Your task to perform on an android device: turn off picture-in-picture Image 0: 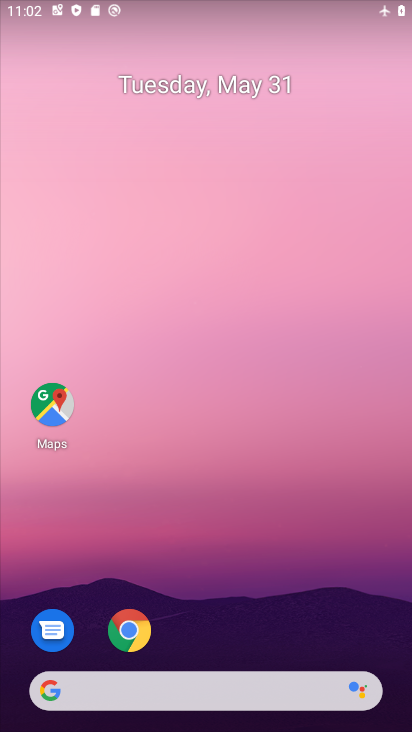
Step 0: drag from (220, 607) to (270, 124)
Your task to perform on an android device: turn off picture-in-picture Image 1: 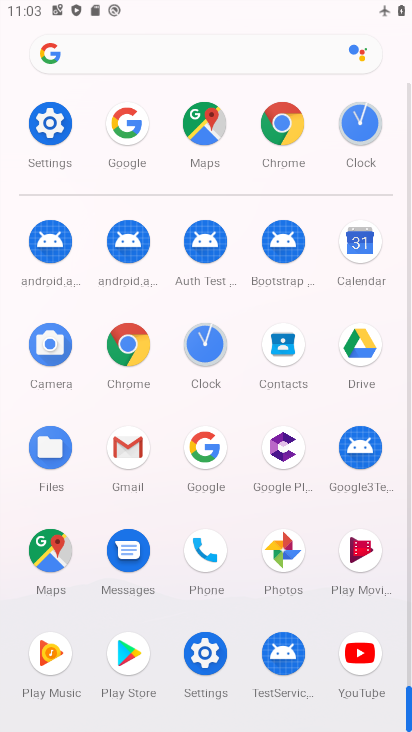
Step 1: click (59, 158)
Your task to perform on an android device: turn off picture-in-picture Image 2: 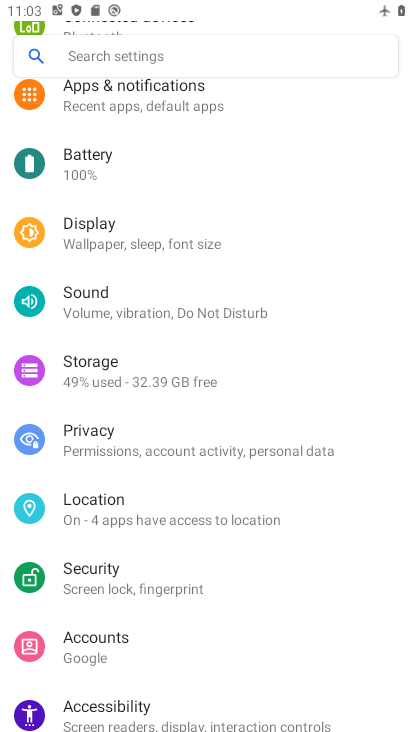
Step 2: drag from (145, 293) to (166, 491)
Your task to perform on an android device: turn off picture-in-picture Image 3: 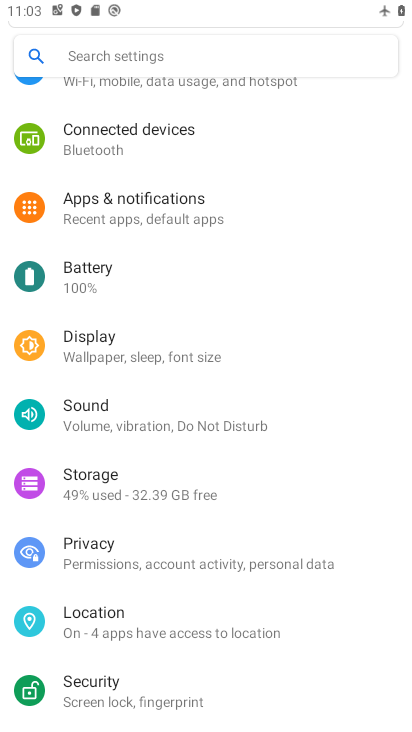
Step 3: click (205, 211)
Your task to perform on an android device: turn off picture-in-picture Image 4: 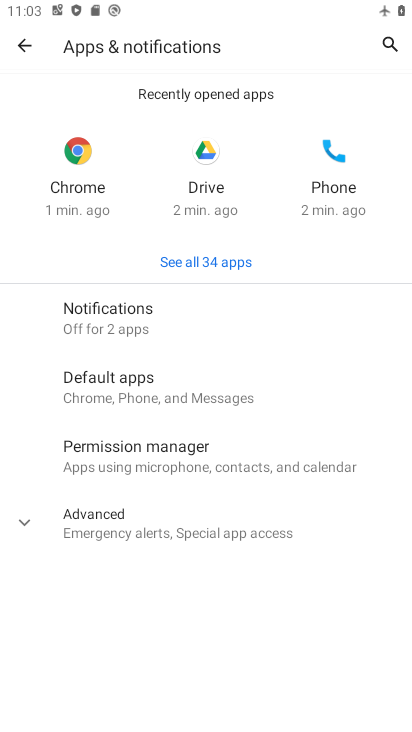
Step 4: click (209, 532)
Your task to perform on an android device: turn off picture-in-picture Image 5: 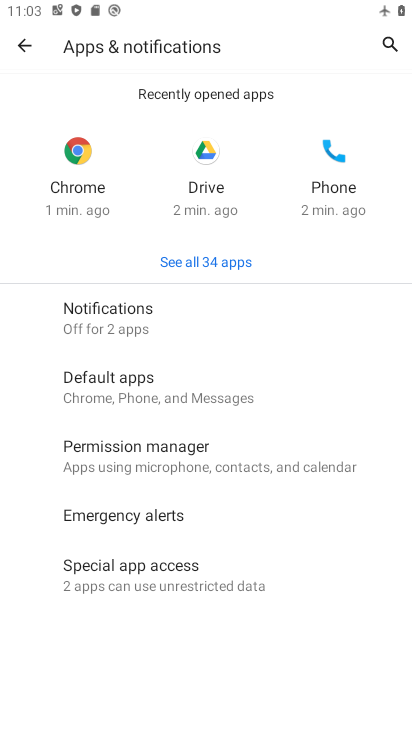
Step 5: click (209, 579)
Your task to perform on an android device: turn off picture-in-picture Image 6: 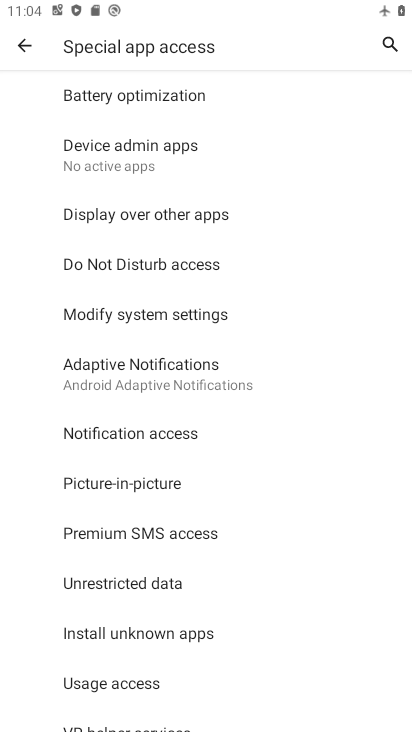
Step 6: click (164, 484)
Your task to perform on an android device: turn off picture-in-picture Image 7: 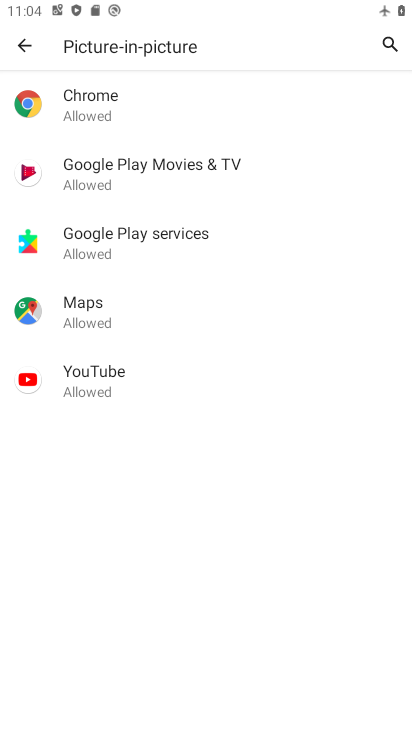
Step 7: click (176, 95)
Your task to perform on an android device: turn off picture-in-picture Image 8: 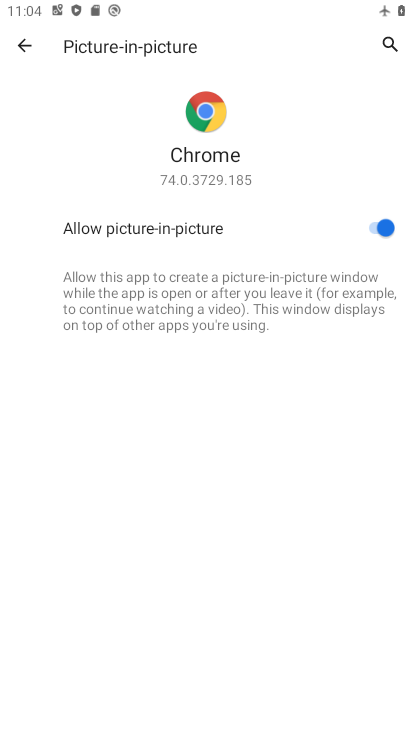
Step 8: click (370, 228)
Your task to perform on an android device: turn off picture-in-picture Image 9: 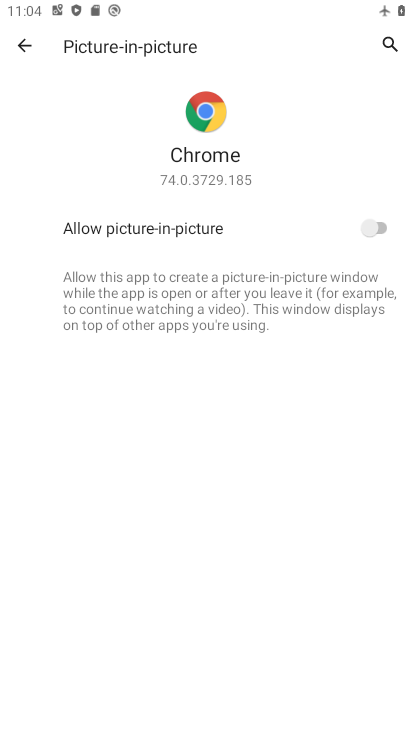
Step 9: task complete